Your task to perform on an android device: Go to internet settings Image 0: 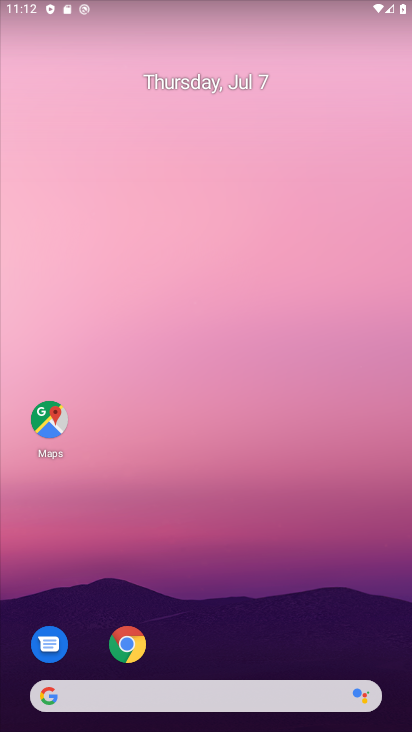
Step 0: drag from (187, 654) to (267, 87)
Your task to perform on an android device: Go to internet settings Image 1: 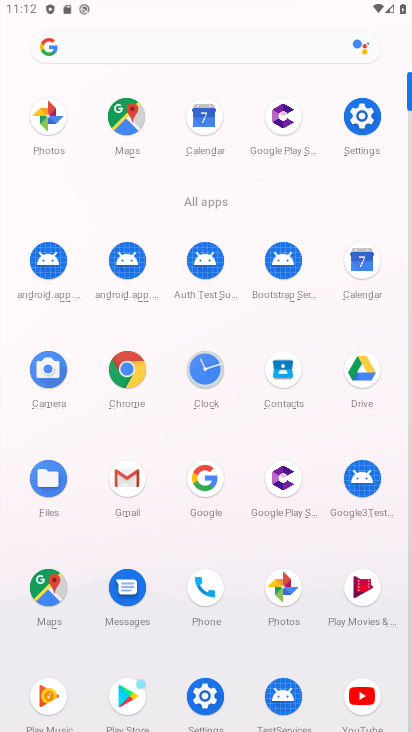
Step 1: click (361, 115)
Your task to perform on an android device: Go to internet settings Image 2: 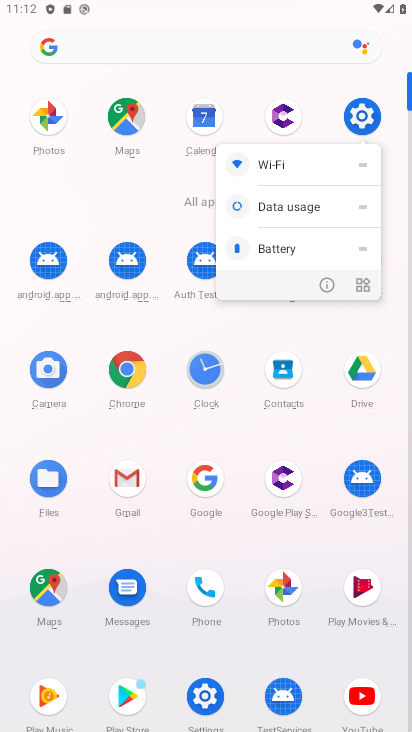
Step 2: click (319, 283)
Your task to perform on an android device: Go to internet settings Image 3: 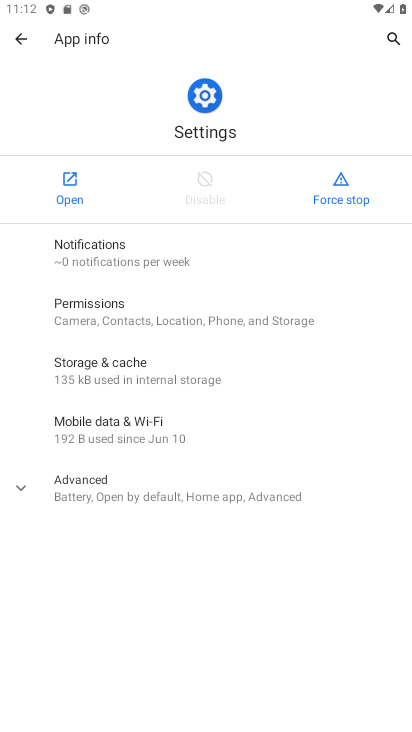
Step 3: click (65, 182)
Your task to perform on an android device: Go to internet settings Image 4: 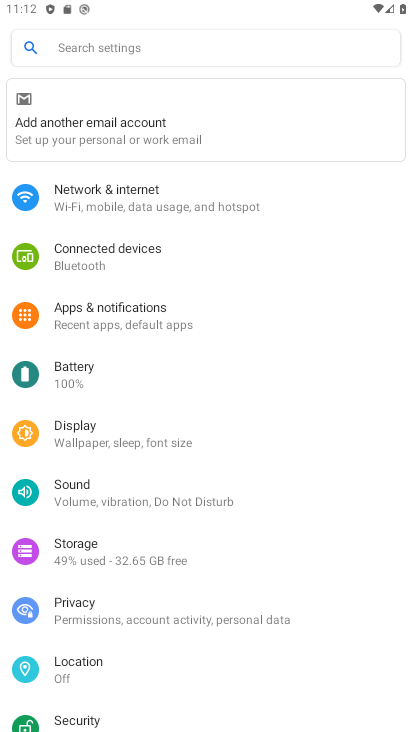
Step 4: click (127, 199)
Your task to perform on an android device: Go to internet settings Image 5: 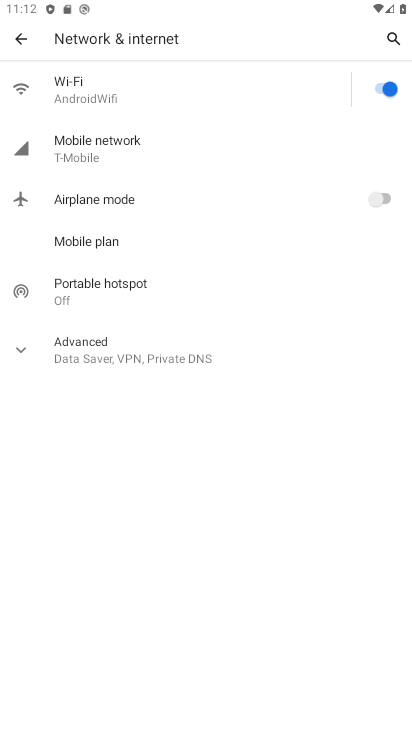
Step 5: task complete